Your task to perform on an android device: Open Google Image 0: 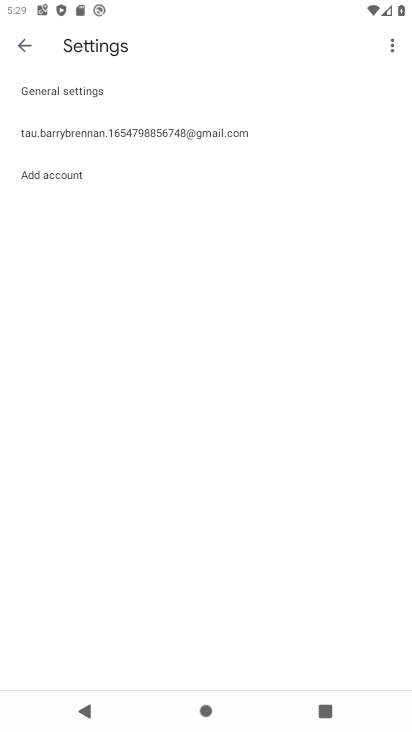
Step 0: press back button
Your task to perform on an android device: Open Google Image 1: 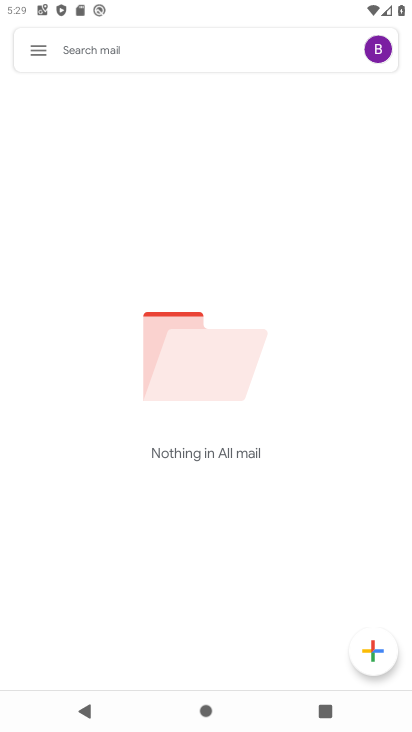
Step 1: press back button
Your task to perform on an android device: Open Google Image 2: 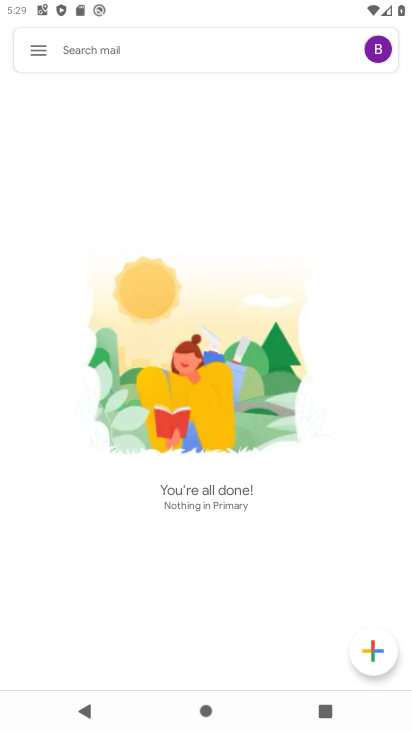
Step 2: press back button
Your task to perform on an android device: Open Google Image 3: 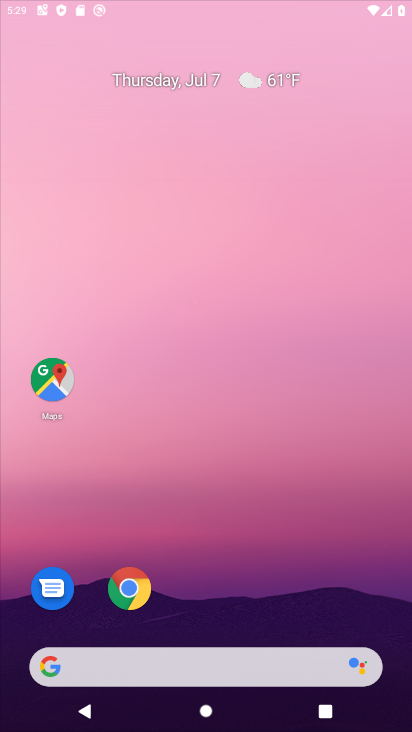
Step 3: press back button
Your task to perform on an android device: Open Google Image 4: 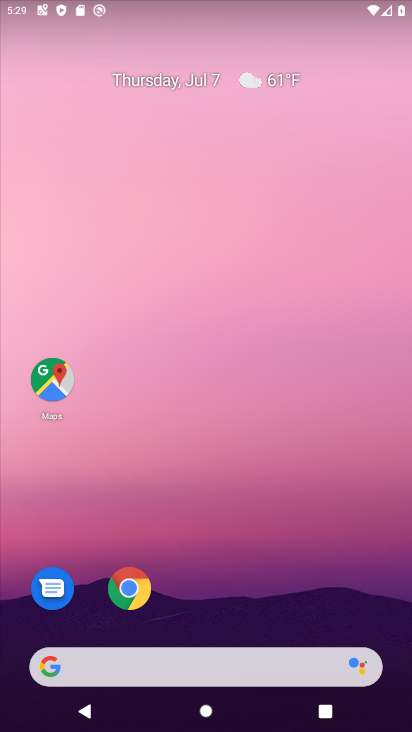
Step 4: drag from (249, 566) to (271, 90)
Your task to perform on an android device: Open Google Image 5: 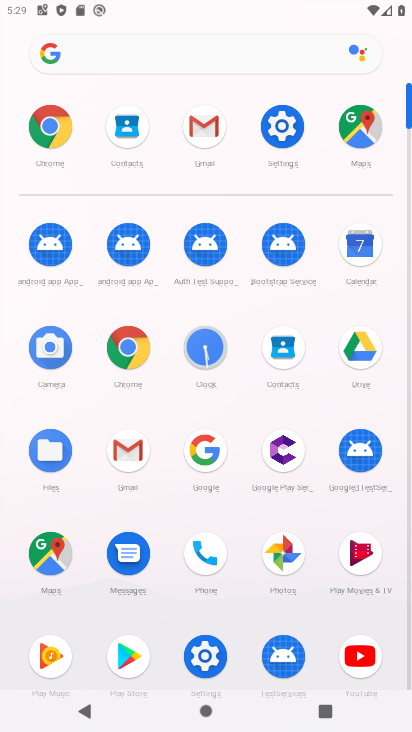
Step 5: click (207, 455)
Your task to perform on an android device: Open Google Image 6: 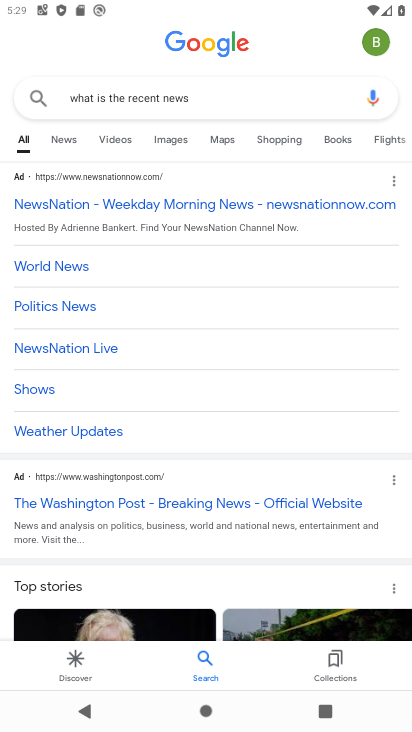
Step 6: task complete